Your task to perform on an android device: delete the emails in spam in the gmail app Image 0: 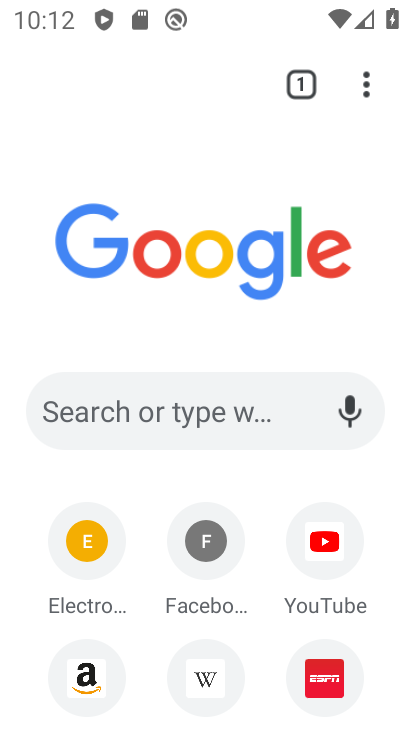
Step 0: press home button
Your task to perform on an android device: delete the emails in spam in the gmail app Image 1: 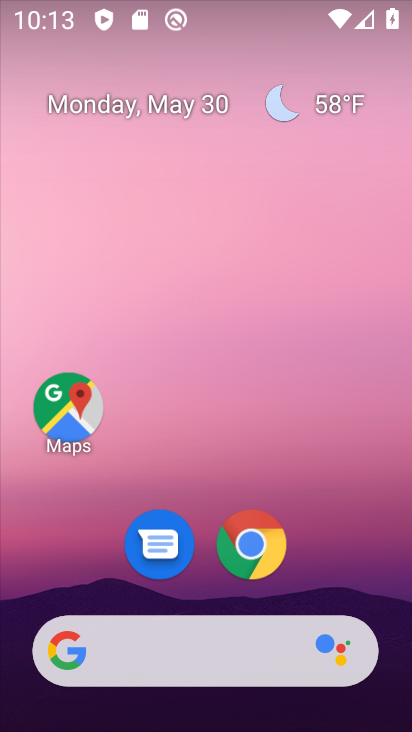
Step 1: drag from (348, 578) to (378, 289)
Your task to perform on an android device: delete the emails in spam in the gmail app Image 2: 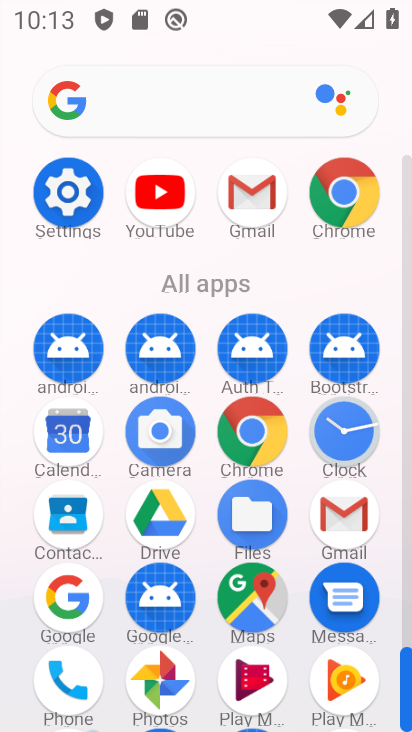
Step 2: click (224, 202)
Your task to perform on an android device: delete the emails in spam in the gmail app Image 3: 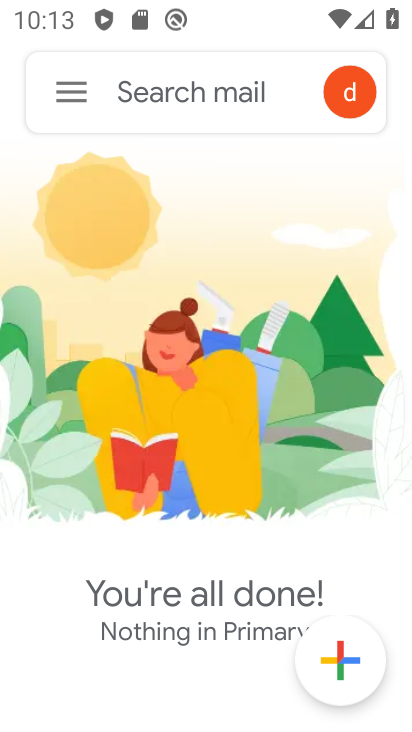
Step 3: task complete